Your task to perform on an android device: Open Youtube and go to the subscriptions tab Image 0: 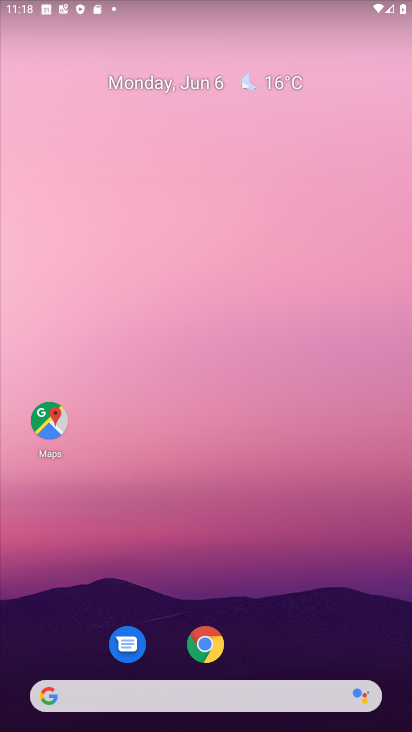
Step 0: drag from (301, 622) to (250, 154)
Your task to perform on an android device: Open Youtube and go to the subscriptions tab Image 1: 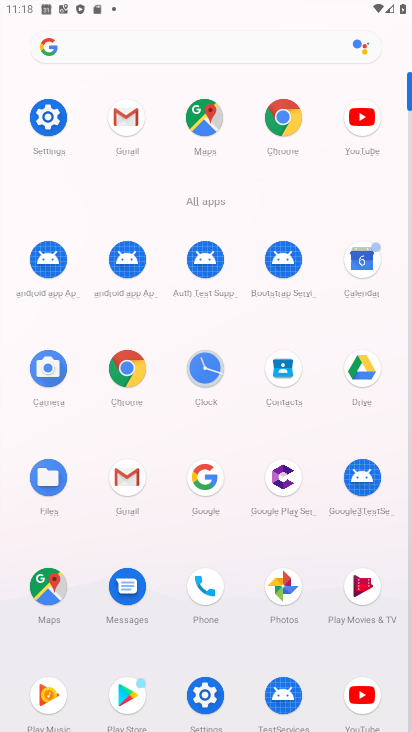
Step 1: click (365, 113)
Your task to perform on an android device: Open Youtube and go to the subscriptions tab Image 2: 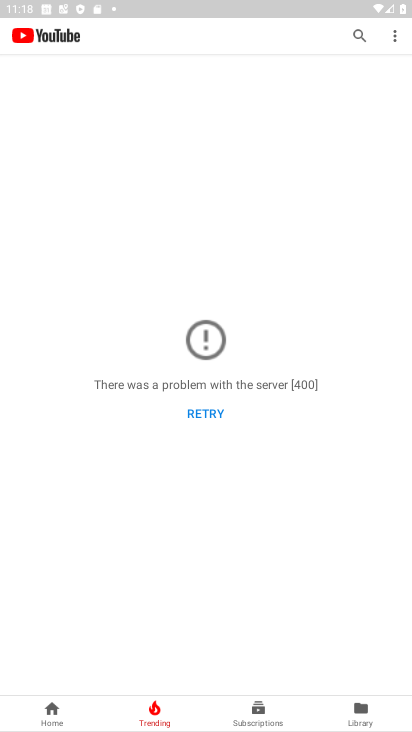
Step 2: click (258, 702)
Your task to perform on an android device: Open Youtube and go to the subscriptions tab Image 3: 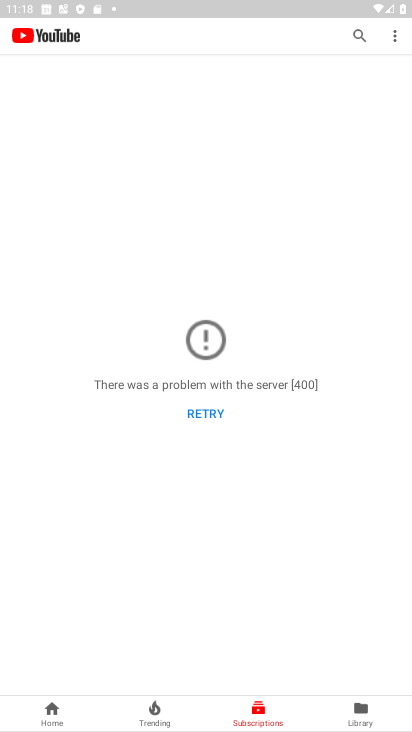
Step 3: task complete